Your task to perform on an android device: add a label to a message in the gmail app Image 0: 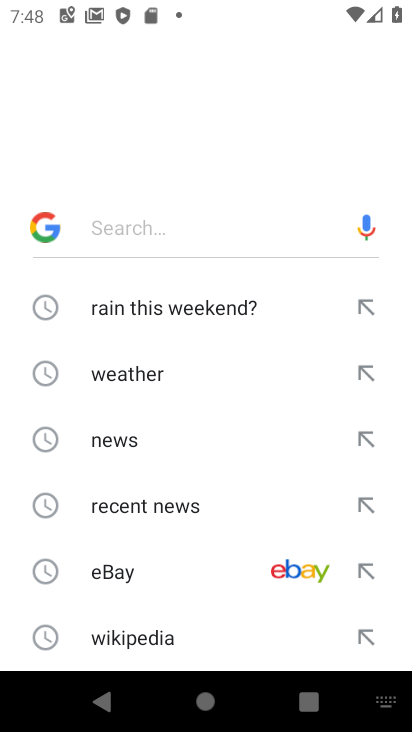
Step 0: press home button
Your task to perform on an android device: add a label to a message in the gmail app Image 1: 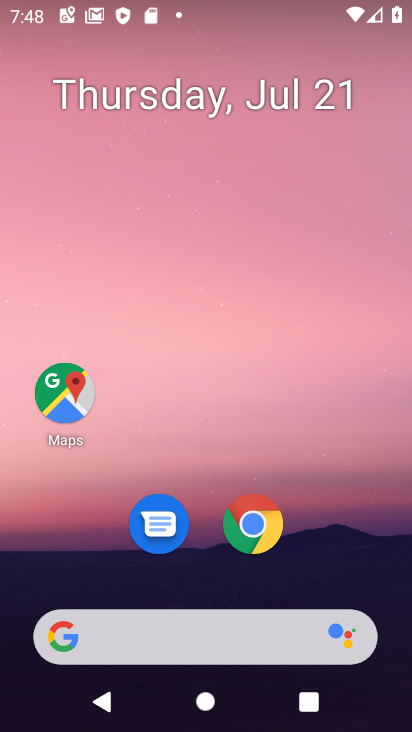
Step 1: drag from (209, 631) to (361, 20)
Your task to perform on an android device: add a label to a message in the gmail app Image 2: 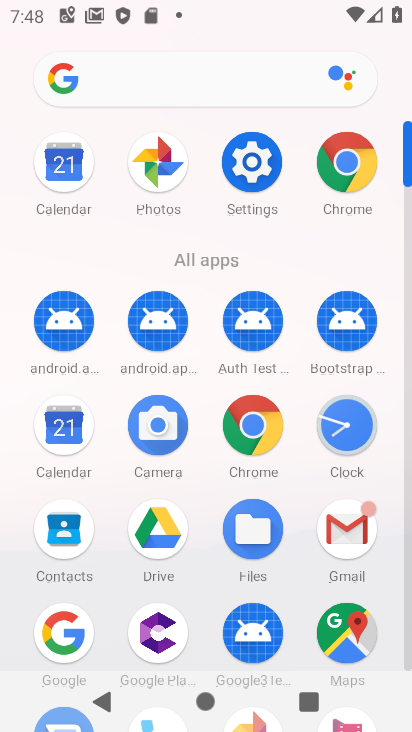
Step 2: click (350, 539)
Your task to perform on an android device: add a label to a message in the gmail app Image 3: 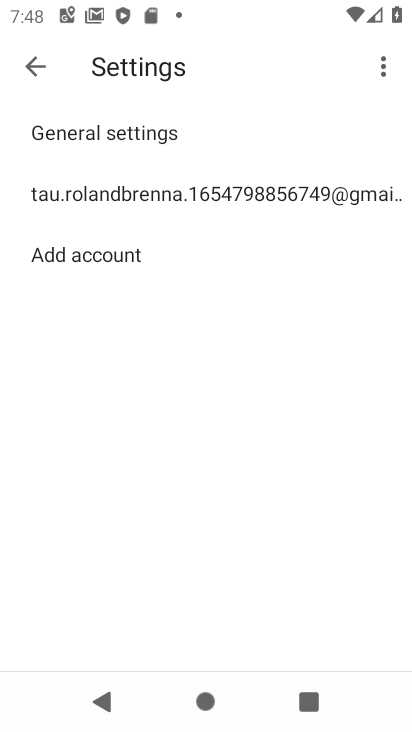
Step 3: click (31, 61)
Your task to perform on an android device: add a label to a message in the gmail app Image 4: 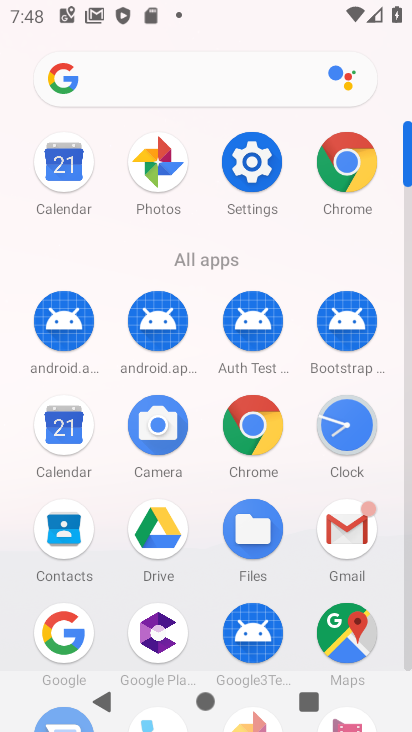
Step 4: click (351, 528)
Your task to perform on an android device: add a label to a message in the gmail app Image 5: 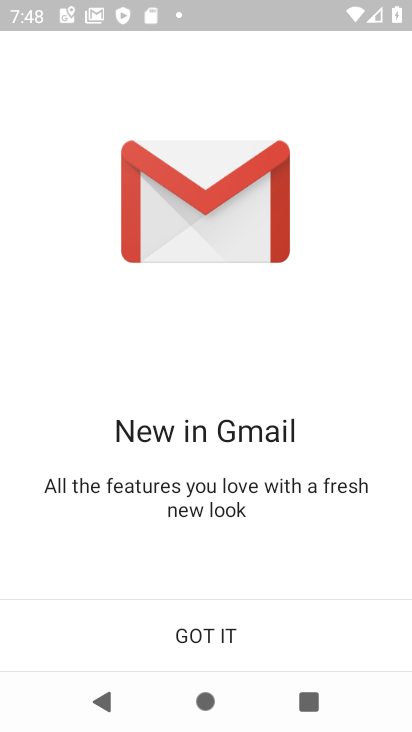
Step 5: click (234, 627)
Your task to perform on an android device: add a label to a message in the gmail app Image 6: 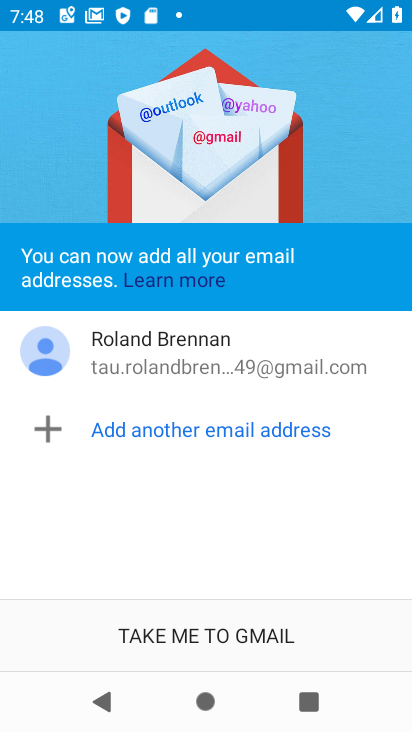
Step 6: click (226, 639)
Your task to perform on an android device: add a label to a message in the gmail app Image 7: 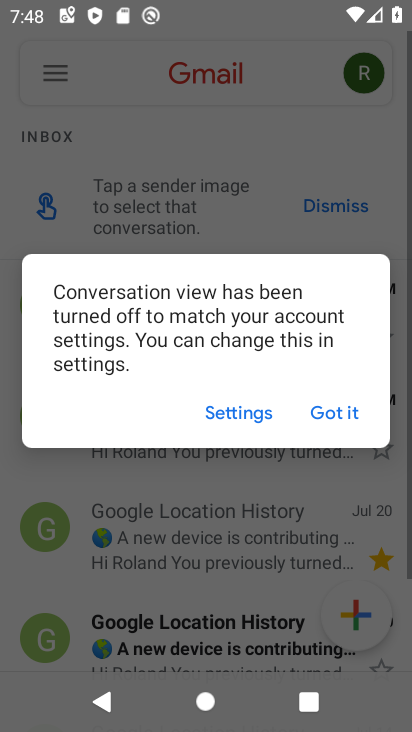
Step 7: click (330, 410)
Your task to perform on an android device: add a label to a message in the gmail app Image 8: 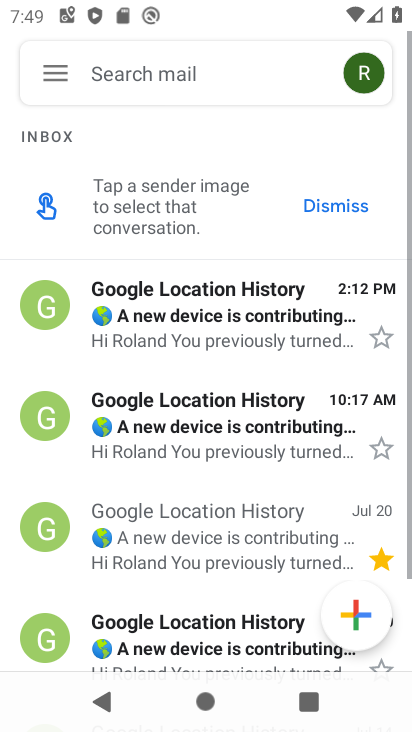
Step 8: click (276, 337)
Your task to perform on an android device: add a label to a message in the gmail app Image 9: 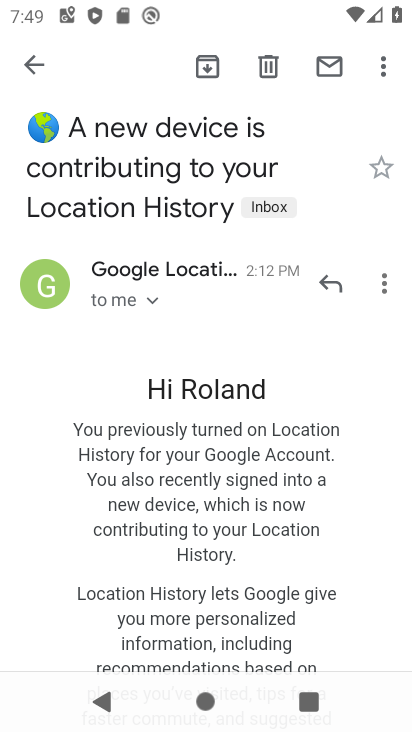
Step 9: click (260, 203)
Your task to perform on an android device: add a label to a message in the gmail app Image 10: 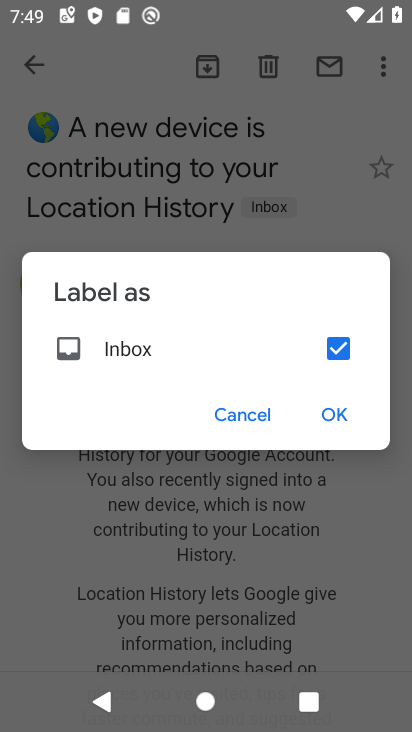
Step 10: click (329, 411)
Your task to perform on an android device: add a label to a message in the gmail app Image 11: 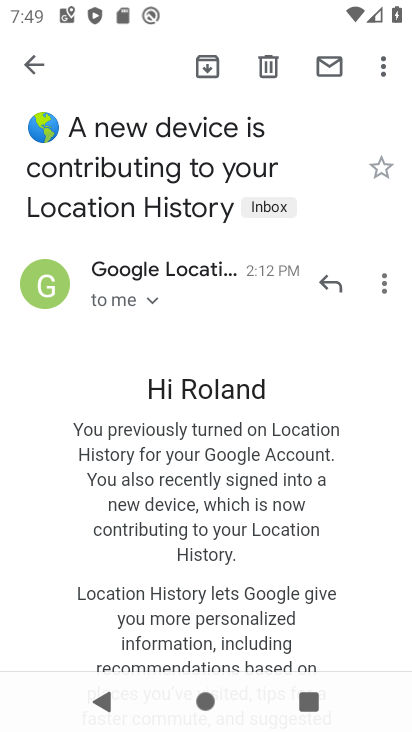
Step 11: task complete